Your task to perform on an android device: Open my contact list Image 0: 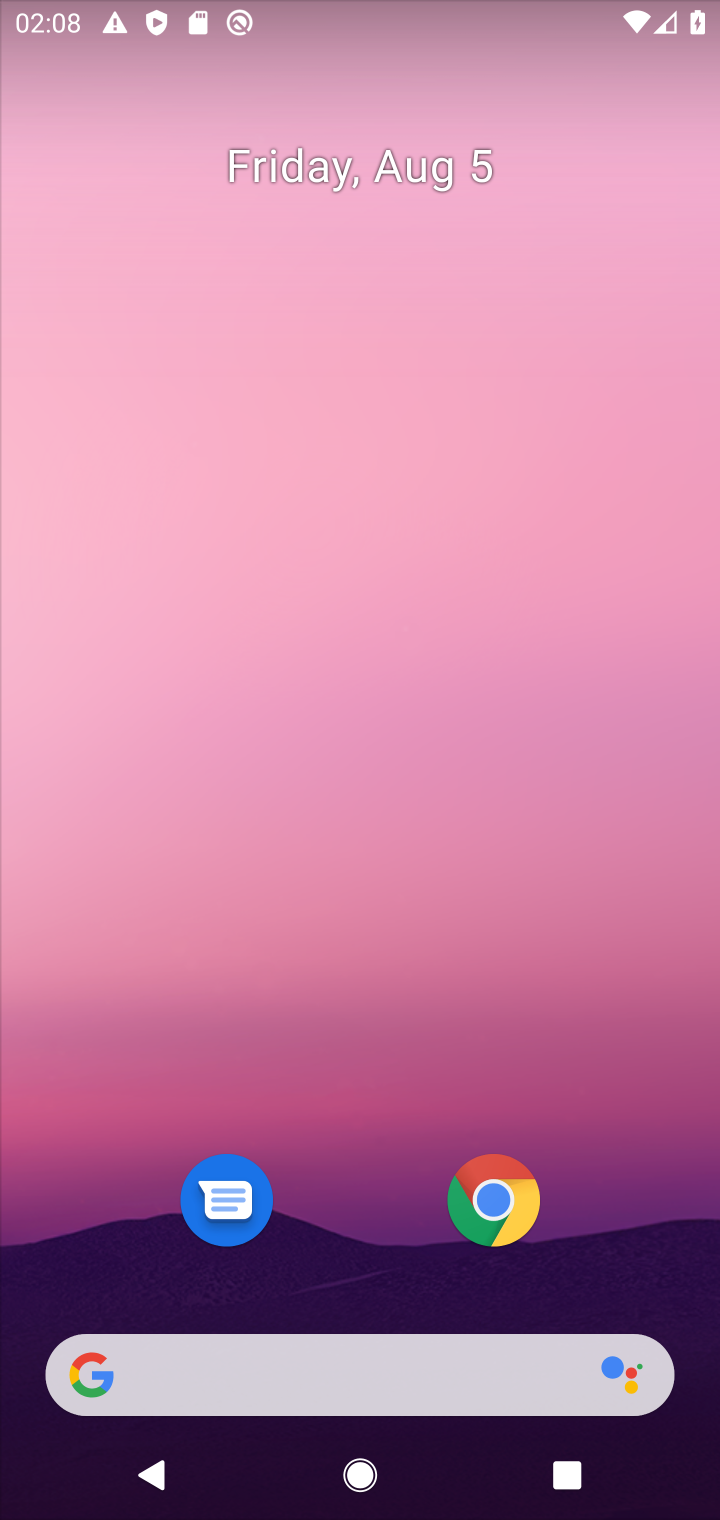
Step 0: drag from (338, 780) to (338, 347)
Your task to perform on an android device: Open my contact list Image 1: 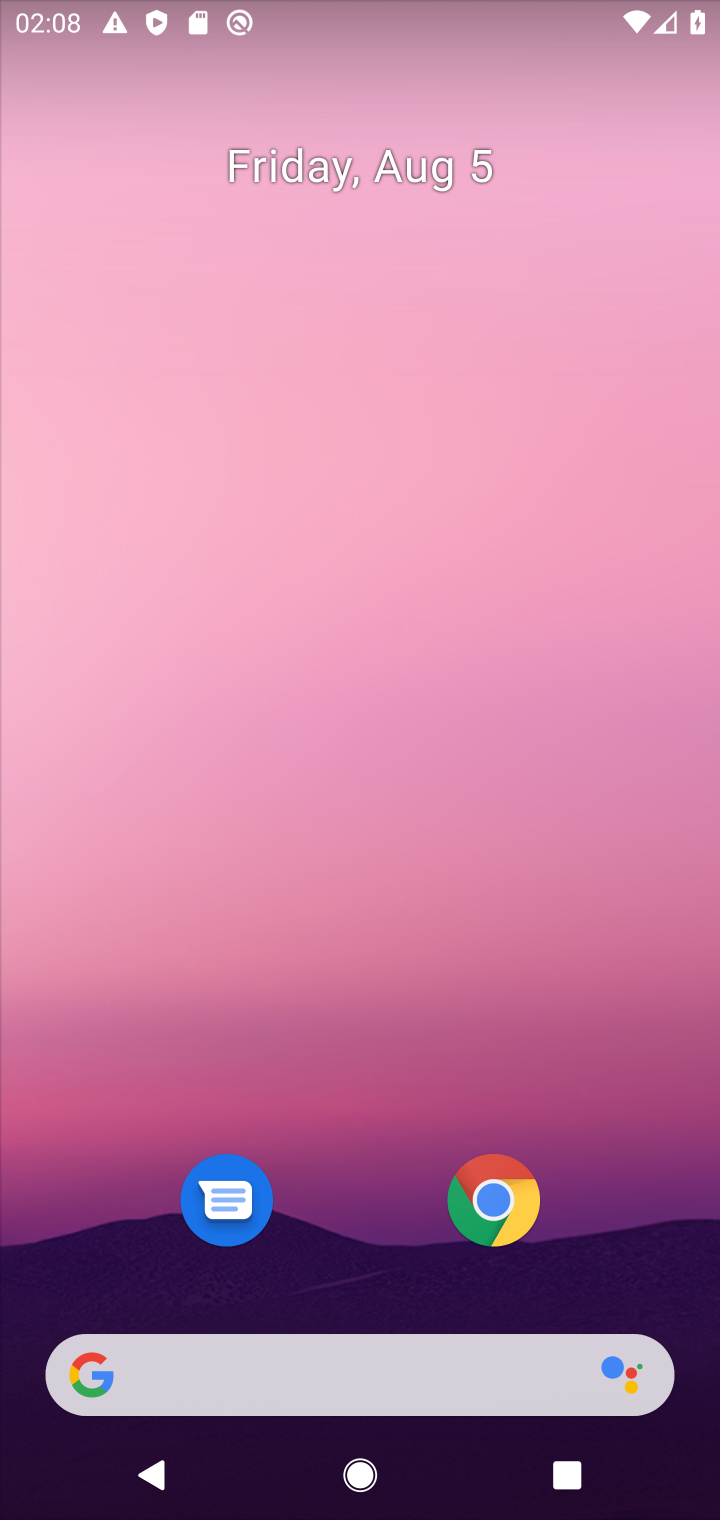
Step 1: drag from (373, 1093) to (345, 310)
Your task to perform on an android device: Open my contact list Image 2: 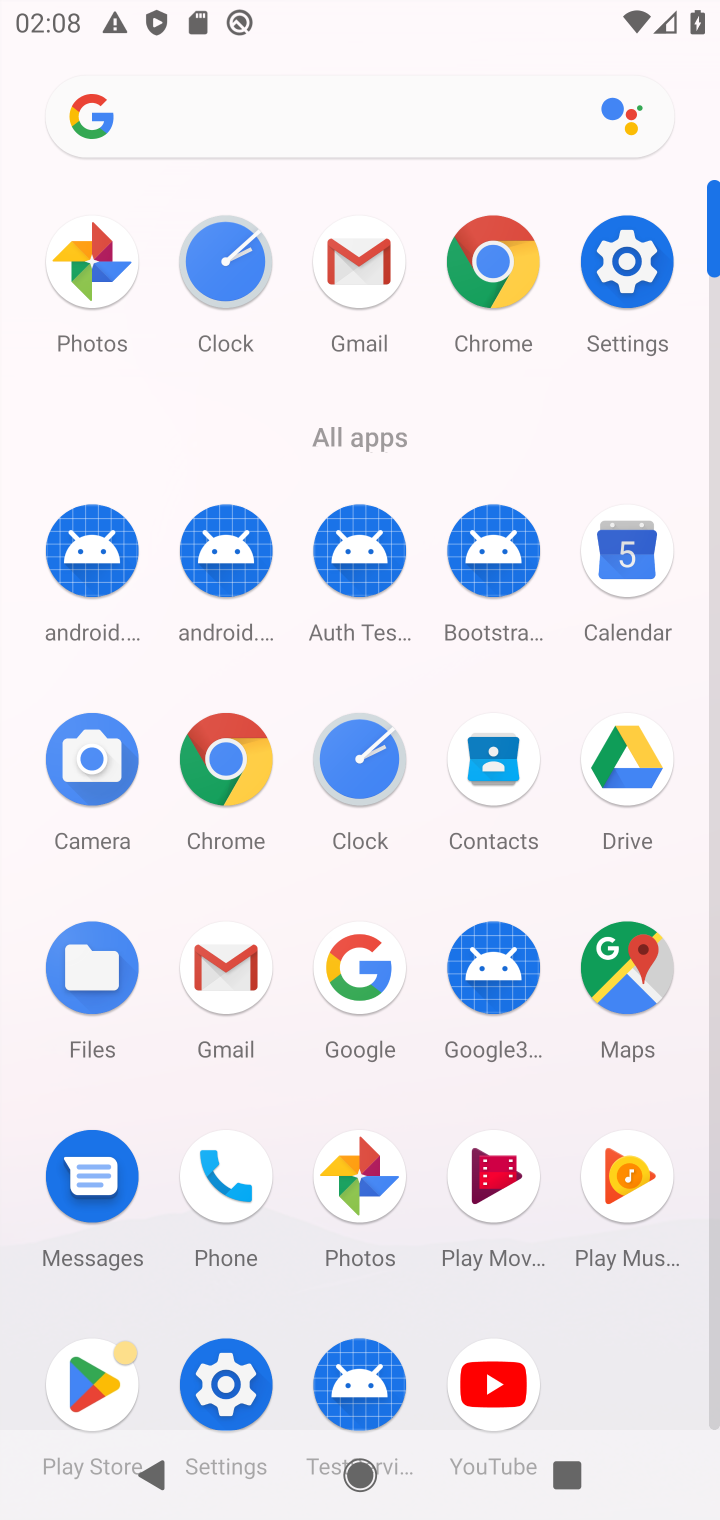
Step 2: click (448, 772)
Your task to perform on an android device: Open my contact list Image 3: 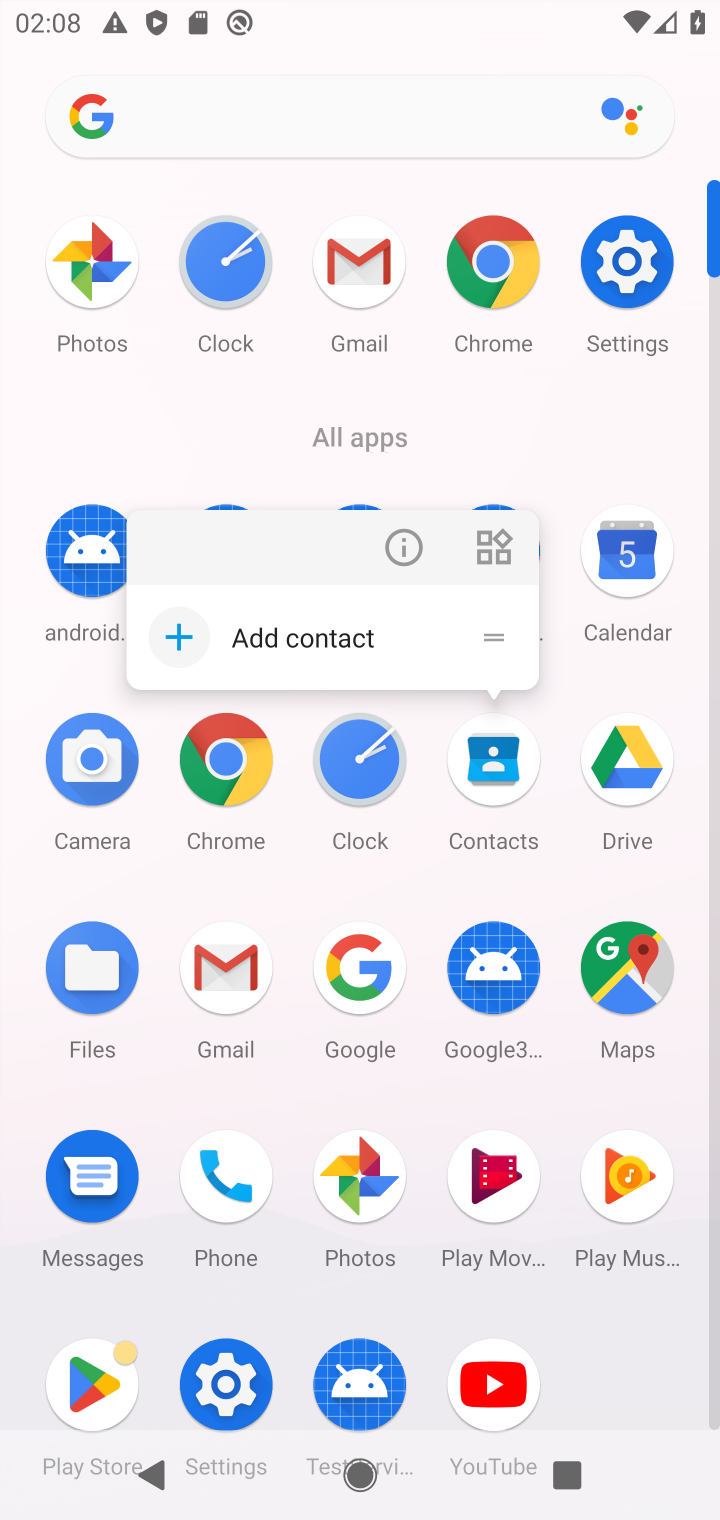
Step 3: click (482, 772)
Your task to perform on an android device: Open my contact list Image 4: 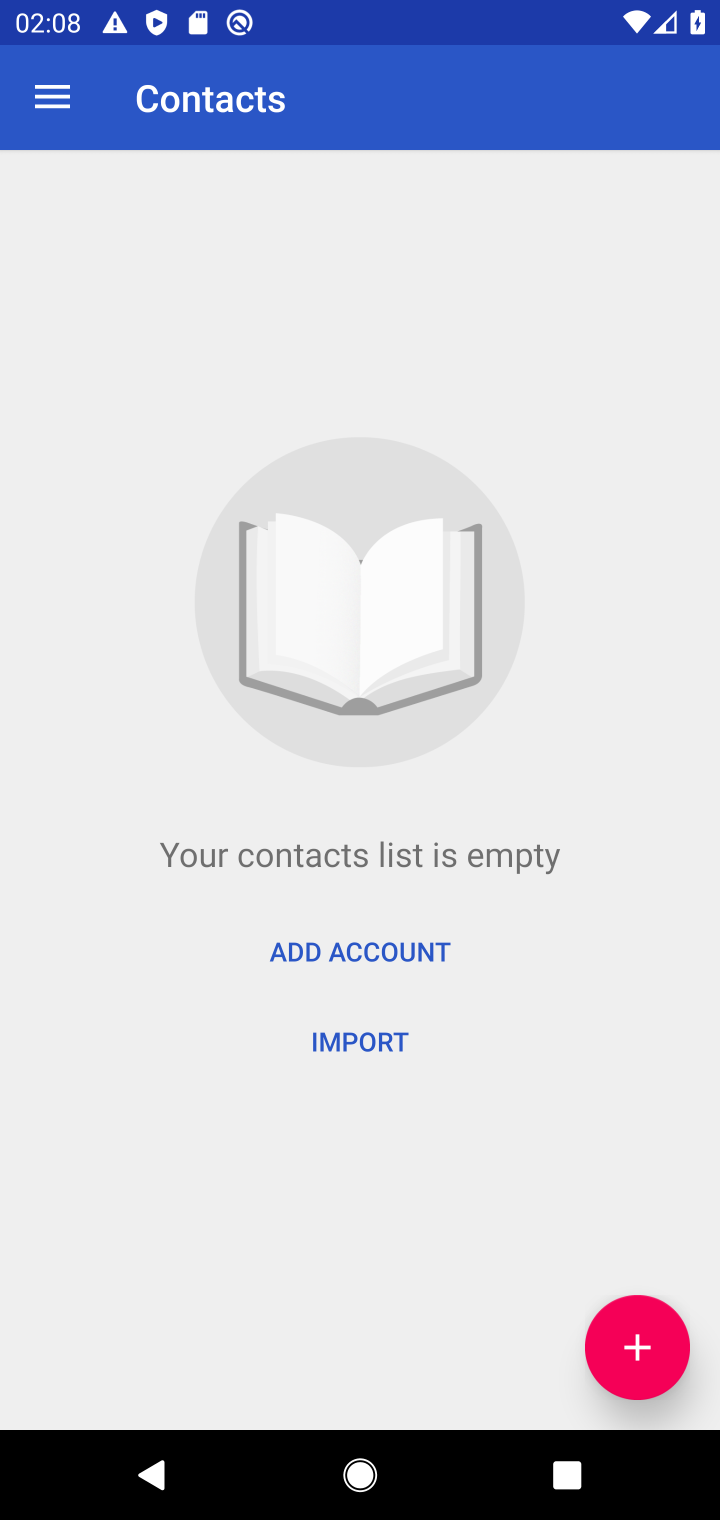
Step 4: task complete